Your task to perform on an android device: Open the phone app and click the voicemail tab. Image 0: 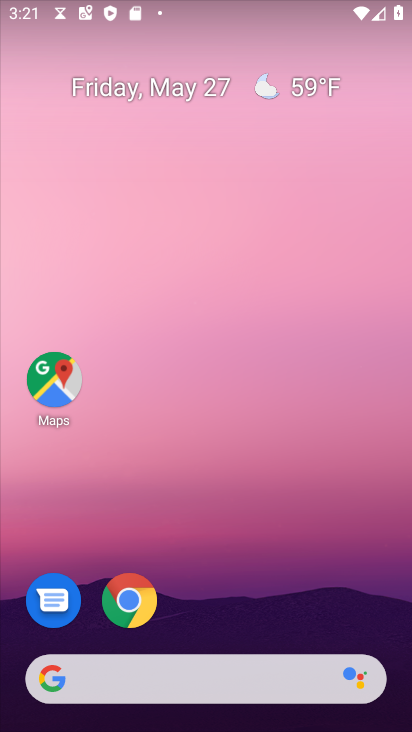
Step 0: drag from (224, 539) to (235, 68)
Your task to perform on an android device: Open the phone app and click the voicemail tab. Image 1: 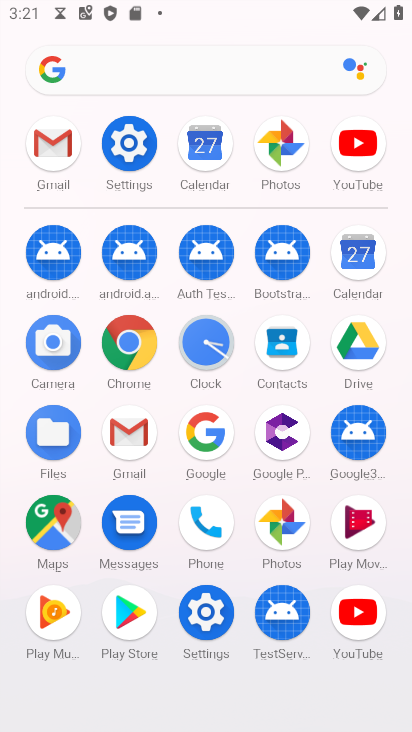
Step 1: click (204, 522)
Your task to perform on an android device: Open the phone app and click the voicemail tab. Image 2: 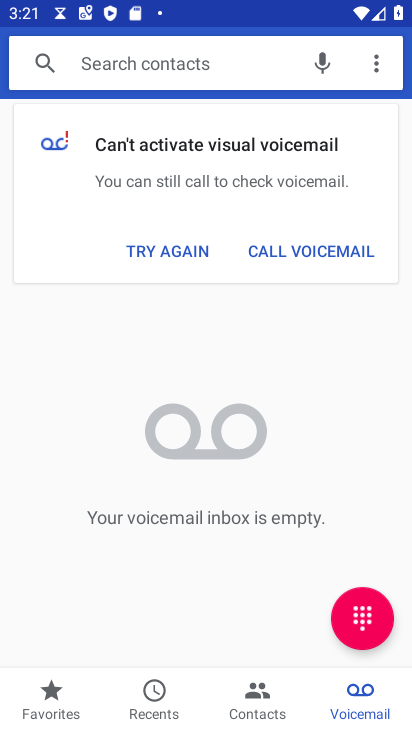
Step 2: click (357, 695)
Your task to perform on an android device: Open the phone app and click the voicemail tab. Image 3: 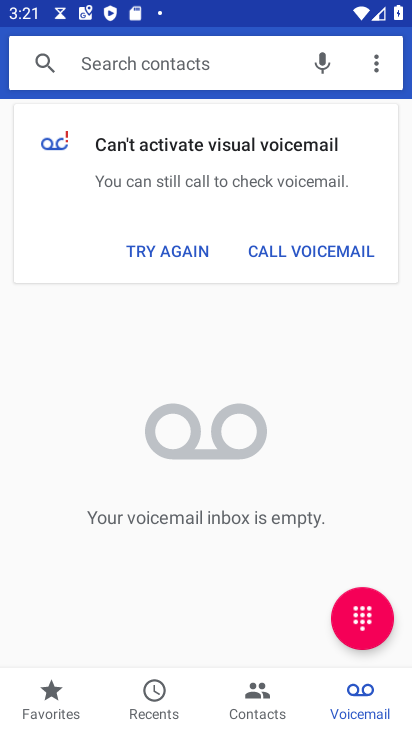
Step 3: task complete